Your task to perform on an android device: open a bookmark in the chrome app Image 0: 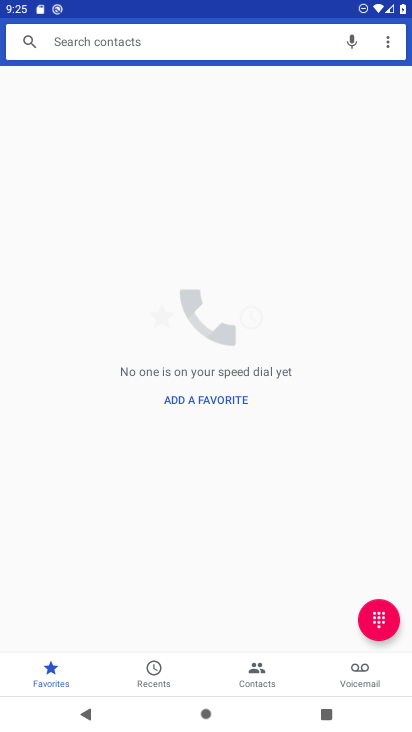
Step 0: press home button
Your task to perform on an android device: open a bookmark in the chrome app Image 1: 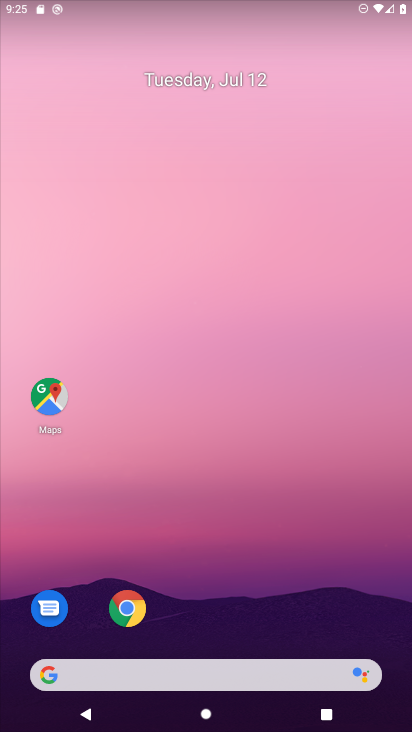
Step 1: click (134, 617)
Your task to perform on an android device: open a bookmark in the chrome app Image 2: 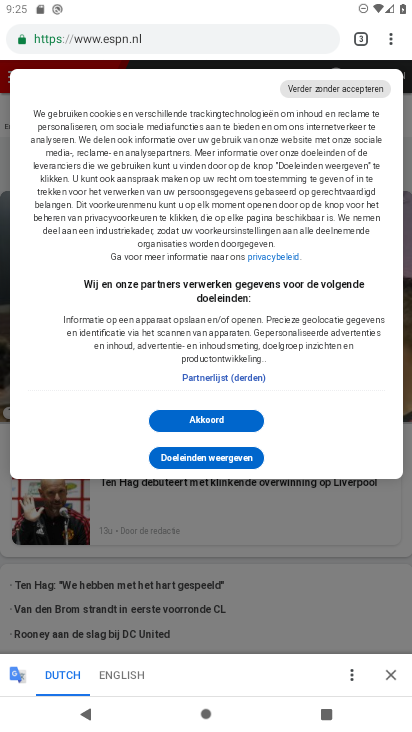
Step 2: click (398, 42)
Your task to perform on an android device: open a bookmark in the chrome app Image 3: 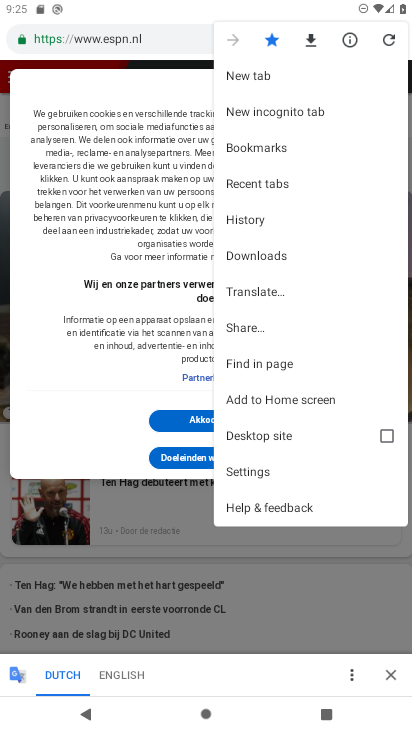
Step 3: click (270, 151)
Your task to perform on an android device: open a bookmark in the chrome app Image 4: 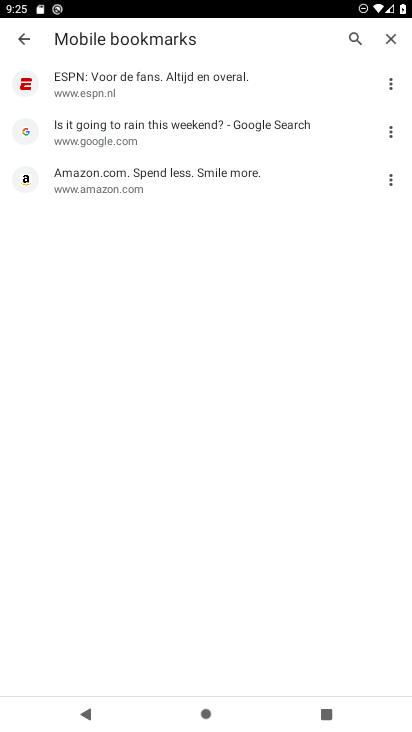
Step 4: click (246, 157)
Your task to perform on an android device: open a bookmark in the chrome app Image 5: 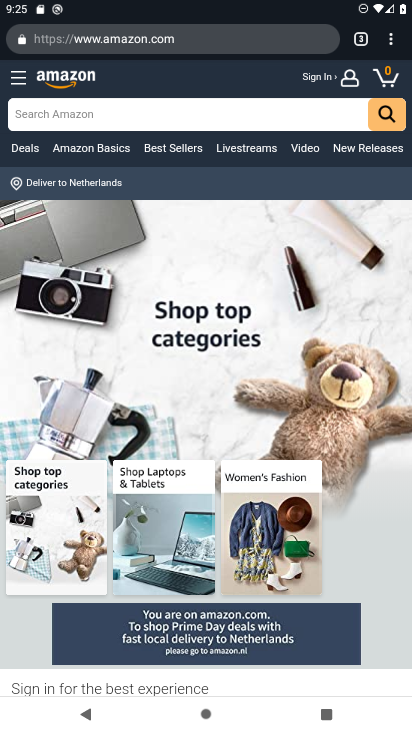
Step 5: task complete